Your task to perform on an android device: Search for vegetarian restaurants on Maps Image 0: 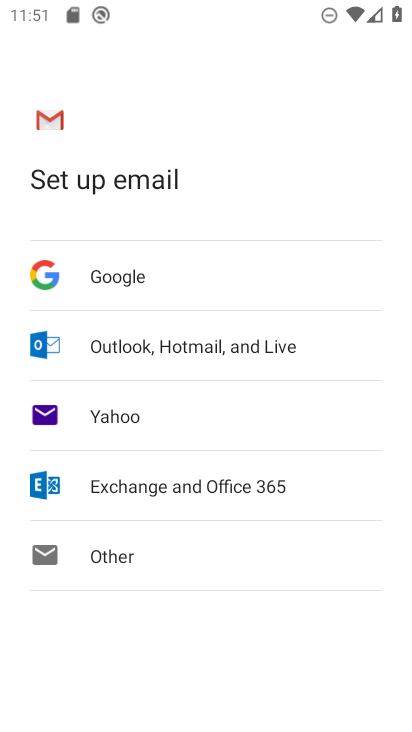
Step 0: press home button
Your task to perform on an android device: Search for vegetarian restaurants on Maps Image 1: 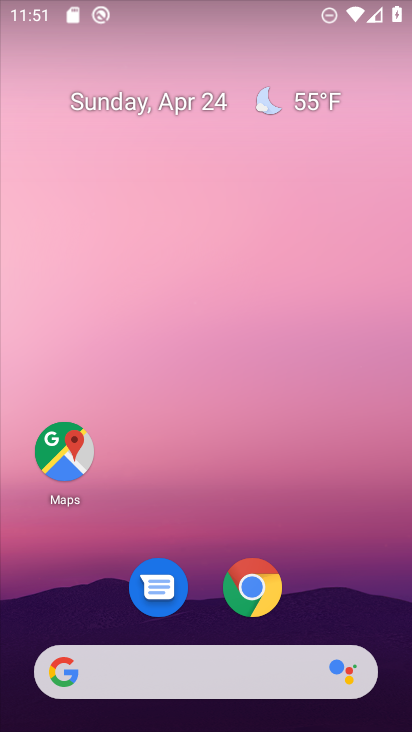
Step 1: drag from (311, 513) to (238, 42)
Your task to perform on an android device: Search for vegetarian restaurants on Maps Image 2: 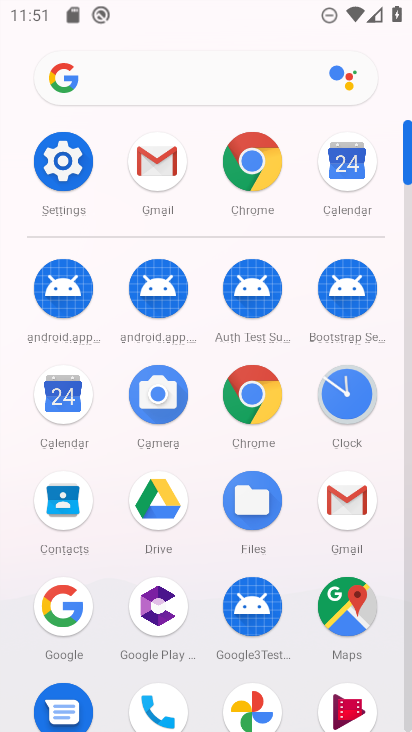
Step 2: click (361, 597)
Your task to perform on an android device: Search for vegetarian restaurants on Maps Image 3: 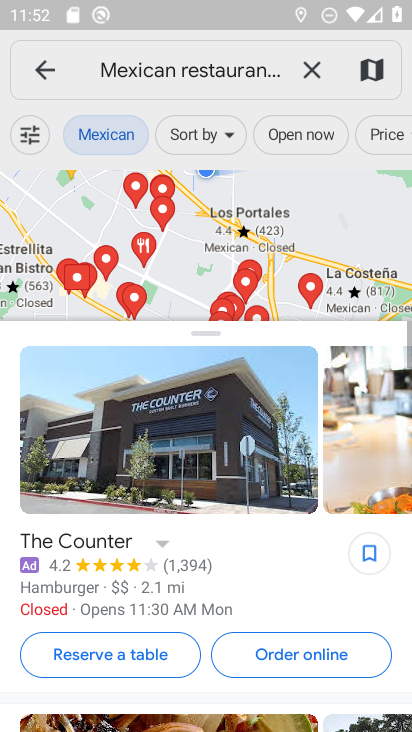
Step 3: click (172, 59)
Your task to perform on an android device: Search for vegetarian restaurants on Maps Image 4: 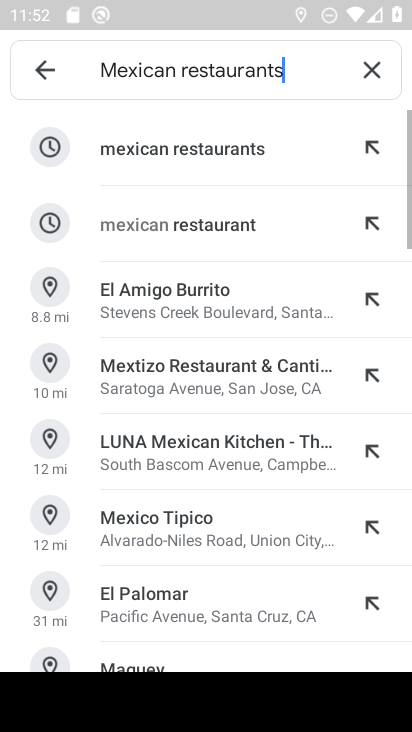
Step 4: click (369, 68)
Your task to perform on an android device: Search for vegetarian restaurants on Maps Image 5: 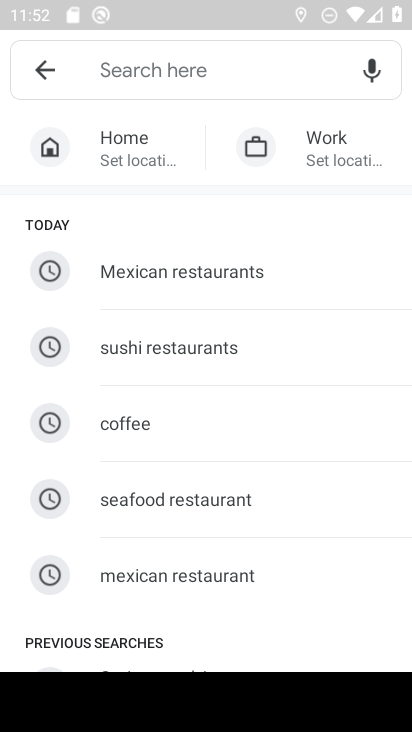
Step 5: click (112, 727)
Your task to perform on an android device: Search for vegetarian restaurants on Maps Image 6: 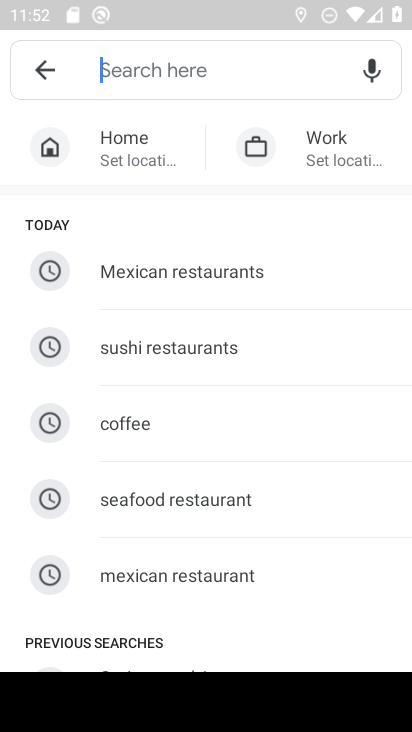
Step 6: type "vegetarian restaurants"
Your task to perform on an android device: Search for vegetarian restaurants on Maps Image 7: 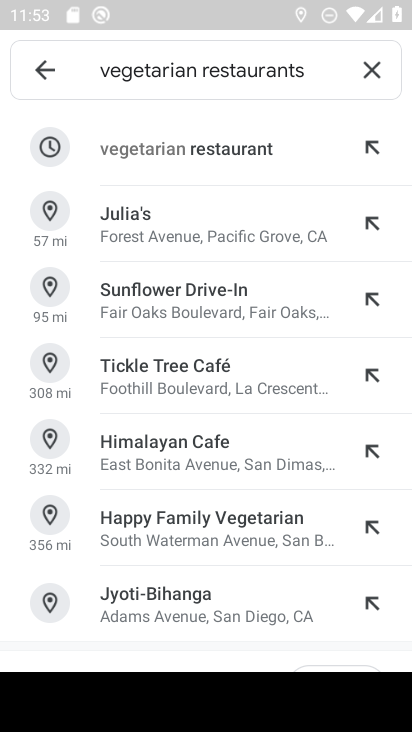
Step 7: press enter
Your task to perform on an android device: Search for vegetarian restaurants on Maps Image 8: 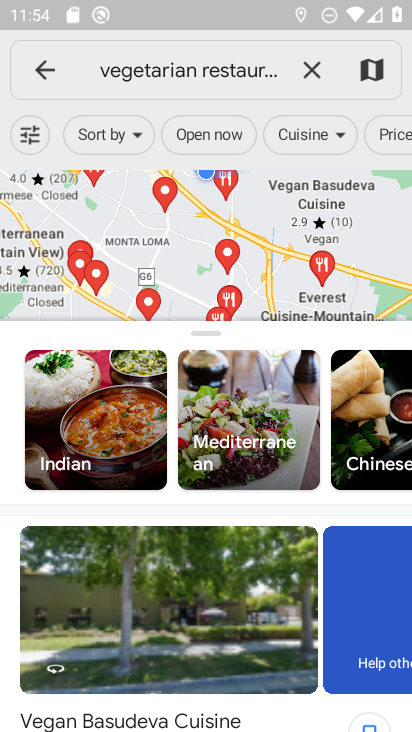
Step 8: task complete